Your task to perform on an android device: turn on the 12-hour format for clock Image 0: 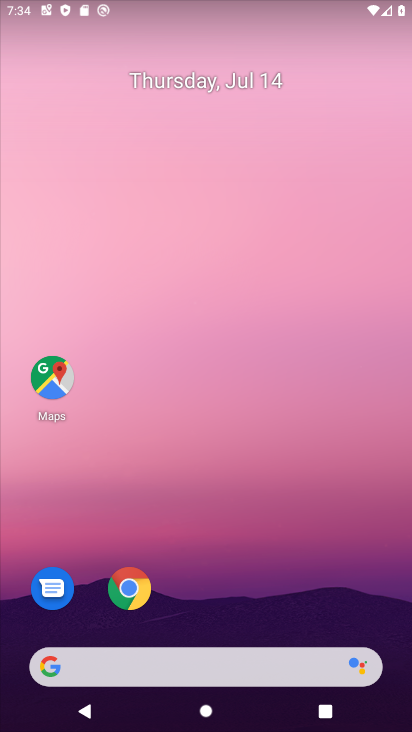
Step 0: drag from (375, 612) to (212, 13)
Your task to perform on an android device: turn on the 12-hour format for clock Image 1: 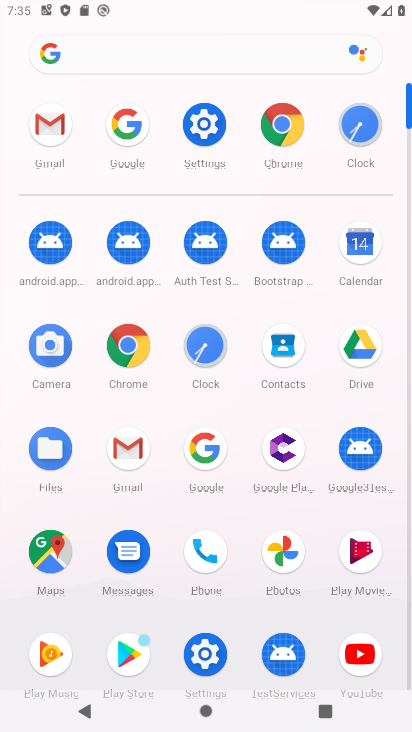
Step 1: click (219, 353)
Your task to perform on an android device: turn on the 12-hour format for clock Image 2: 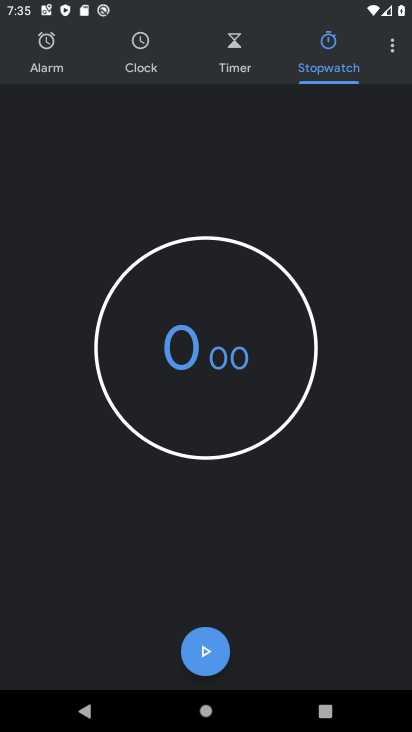
Step 2: click (386, 39)
Your task to perform on an android device: turn on the 12-hour format for clock Image 3: 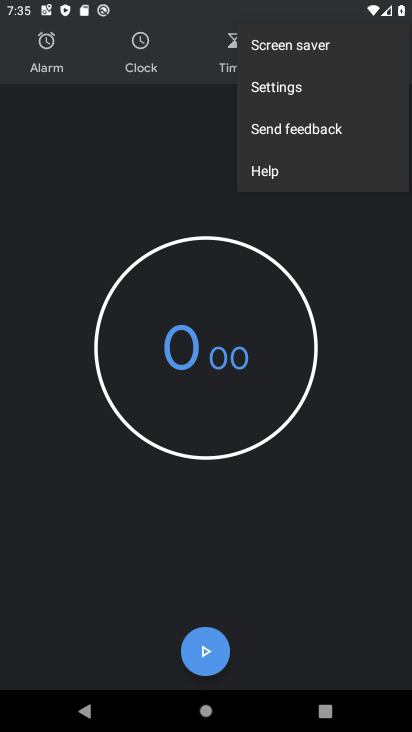
Step 3: click (278, 86)
Your task to perform on an android device: turn on the 12-hour format for clock Image 4: 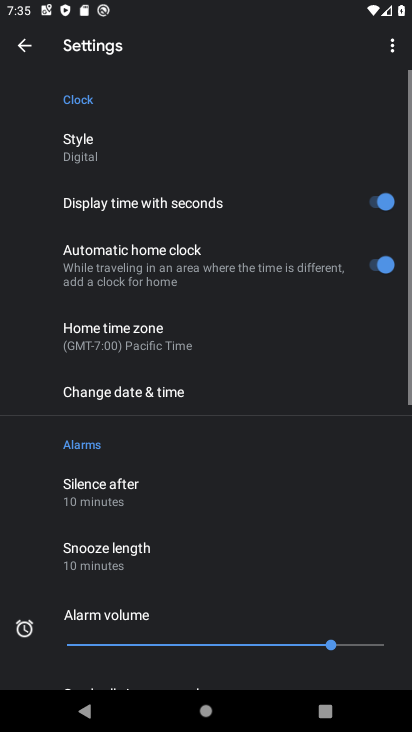
Step 4: click (134, 389)
Your task to perform on an android device: turn on the 12-hour format for clock Image 5: 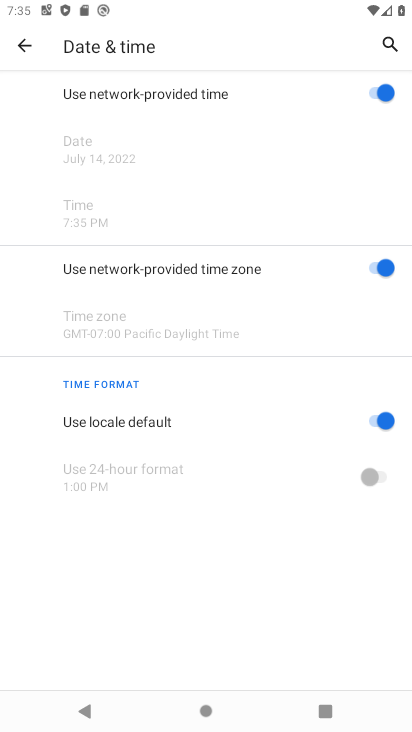
Step 5: task complete